Your task to perform on an android device: Open maps Image 0: 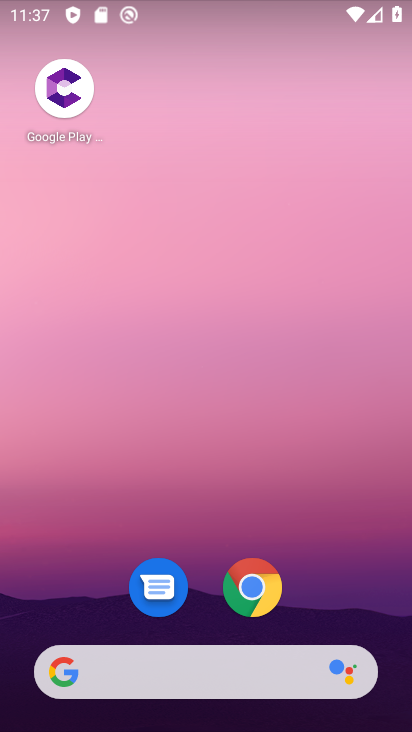
Step 0: drag from (350, 569) to (300, 192)
Your task to perform on an android device: Open maps Image 1: 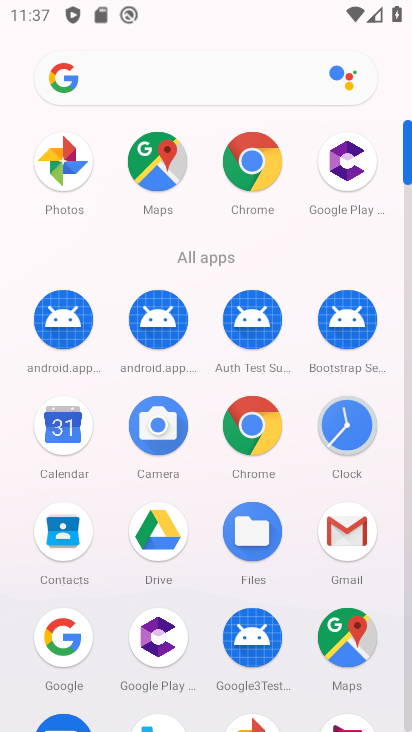
Step 1: click (174, 177)
Your task to perform on an android device: Open maps Image 2: 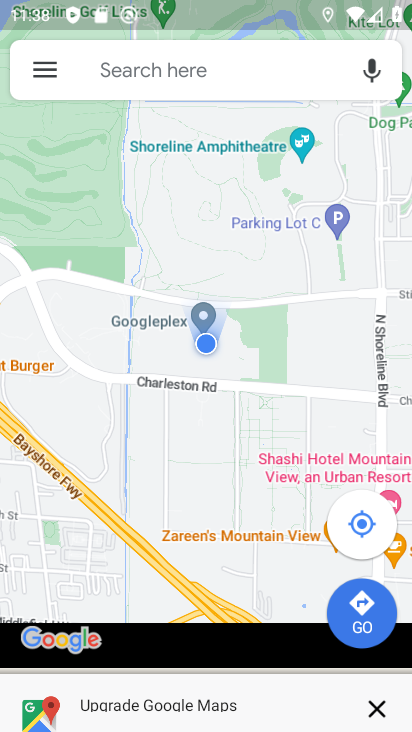
Step 2: task complete